Your task to perform on an android device: allow cookies in the chrome app Image 0: 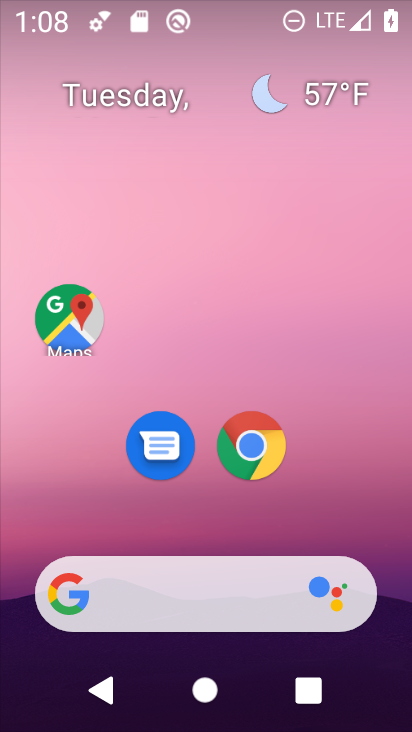
Step 0: drag from (395, 545) to (391, 196)
Your task to perform on an android device: allow cookies in the chrome app Image 1: 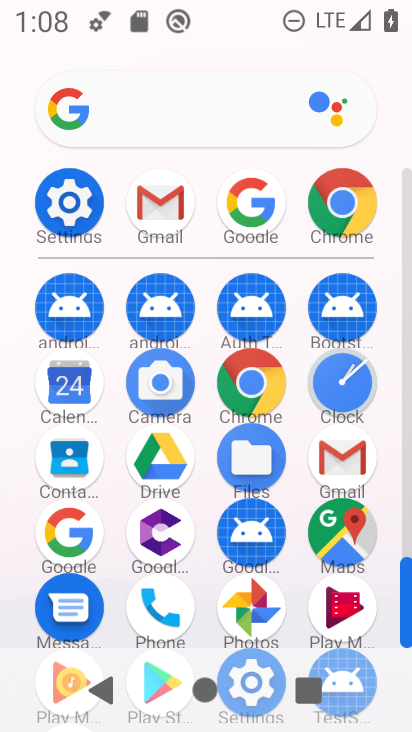
Step 1: click (237, 385)
Your task to perform on an android device: allow cookies in the chrome app Image 2: 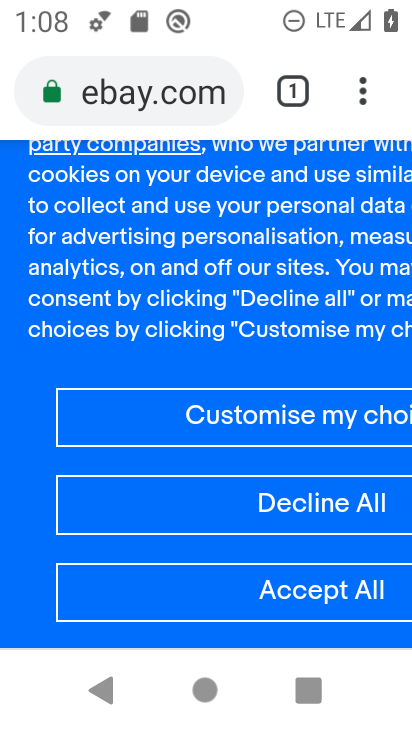
Step 2: click (360, 100)
Your task to perform on an android device: allow cookies in the chrome app Image 3: 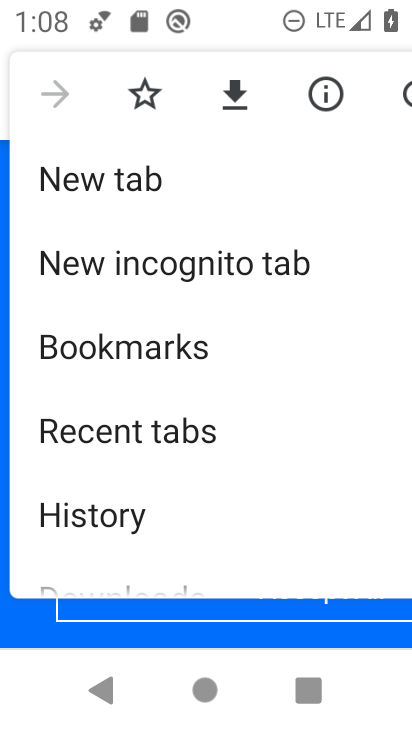
Step 3: drag from (338, 448) to (350, 320)
Your task to perform on an android device: allow cookies in the chrome app Image 4: 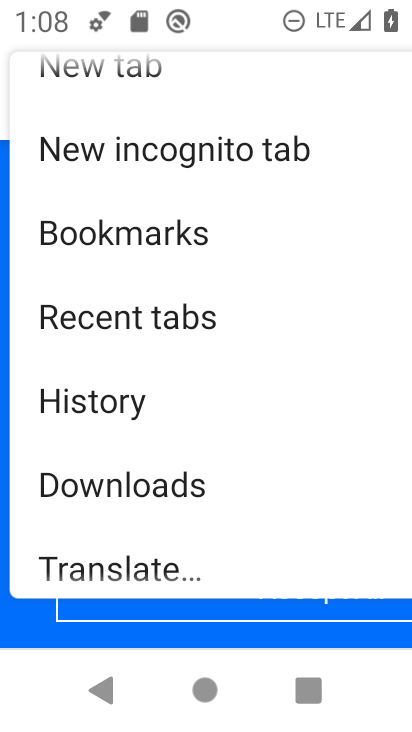
Step 4: drag from (331, 494) to (344, 373)
Your task to perform on an android device: allow cookies in the chrome app Image 5: 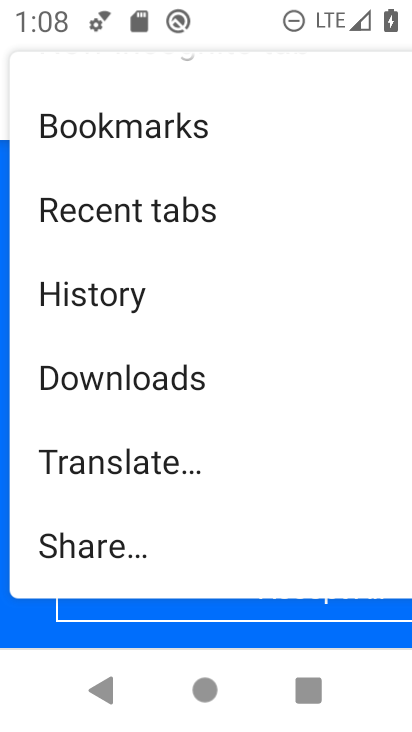
Step 5: drag from (314, 528) to (340, 380)
Your task to perform on an android device: allow cookies in the chrome app Image 6: 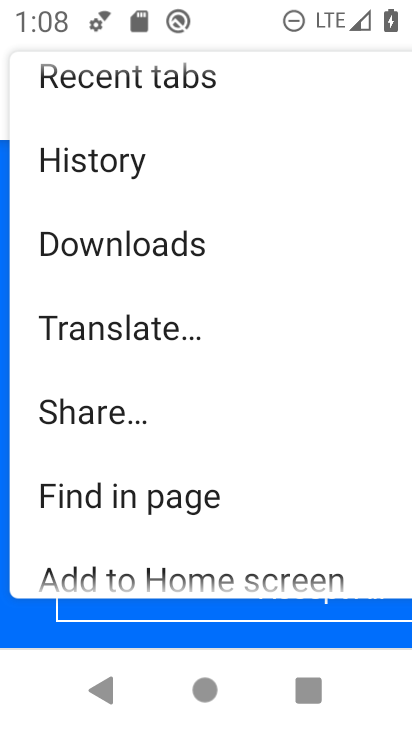
Step 6: drag from (337, 513) to (350, 371)
Your task to perform on an android device: allow cookies in the chrome app Image 7: 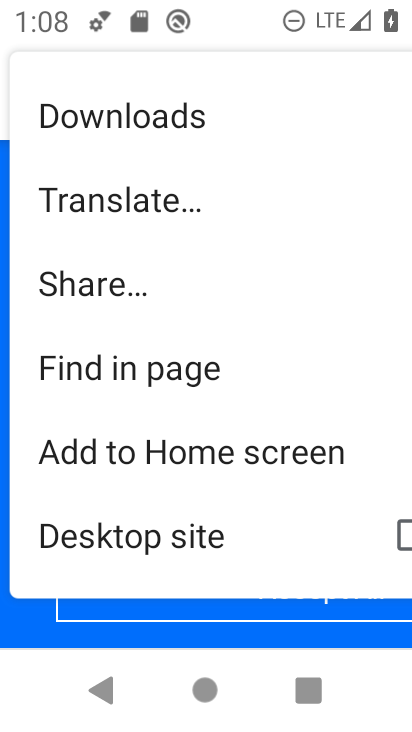
Step 7: drag from (322, 531) to (321, 348)
Your task to perform on an android device: allow cookies in the chrome app Image 8: 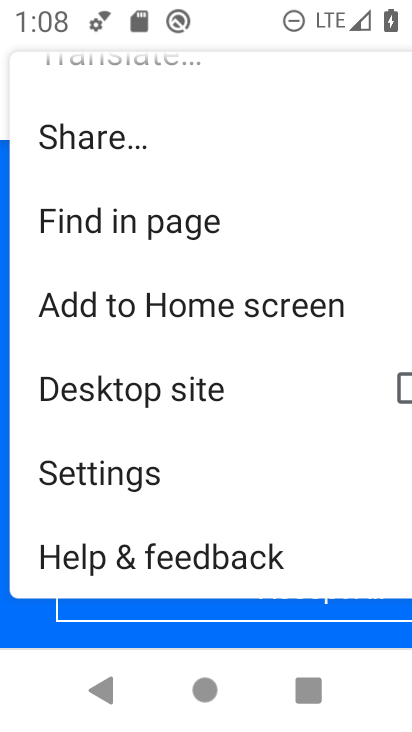
Step 8: click (202, 499)
Your task to perform on an android device: allow cookies in the chrome app Image 9: 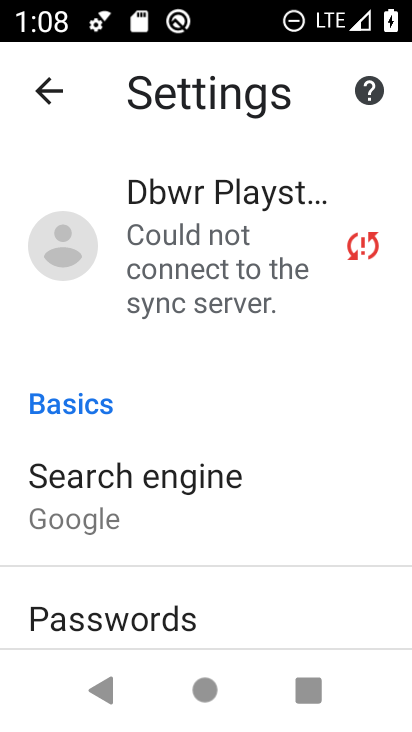
Step 9: drag from (343, 511) to (350, 404)
Your task to perform on an android device: allow cookies in the chrome app Image 10: 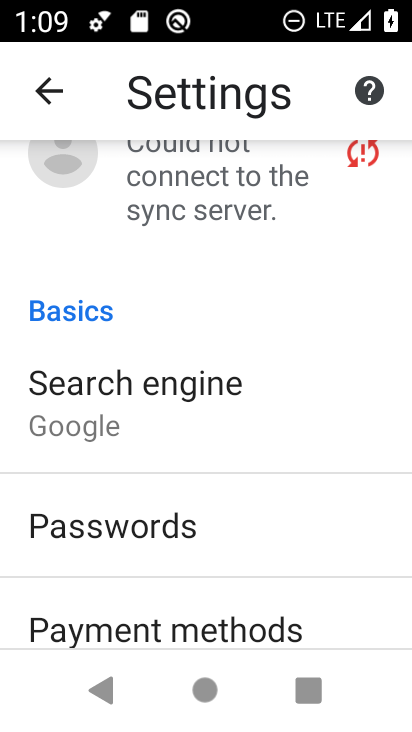
Step 10: drag from (364, 448) to (361, 379)
Your task to perform on an android device: allow cookies in the chrome app Image 11: 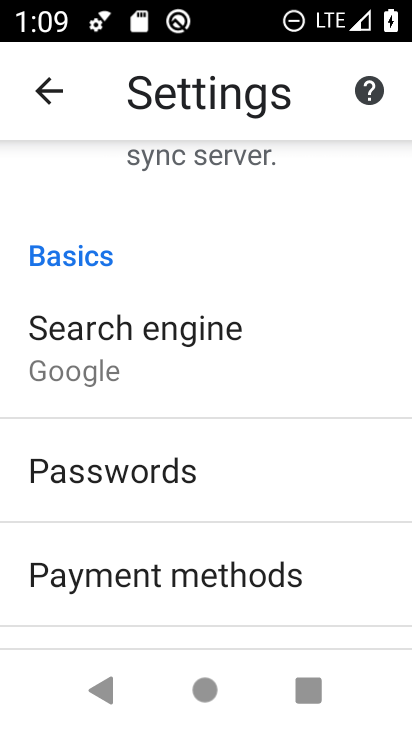
Step 11: drag from (364, 537) to (366, 382)
Your task to perform on an android device: allow cookies in the chrome app Image 12: 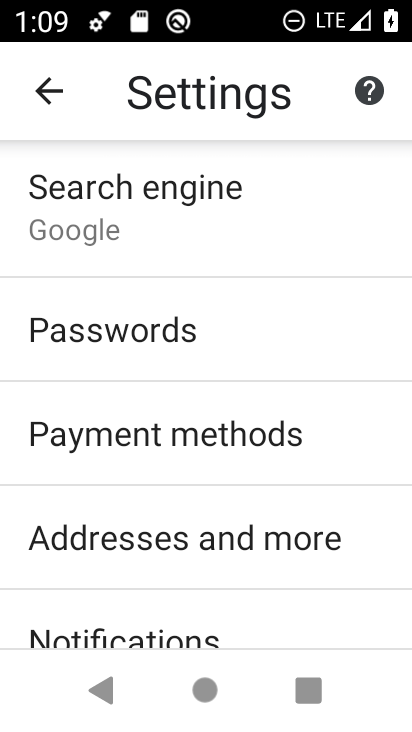
Step 12: drag from (340, 617) to (341, 449)
Your task to perform on an android device: allow cookies in the chrome app Image 13: 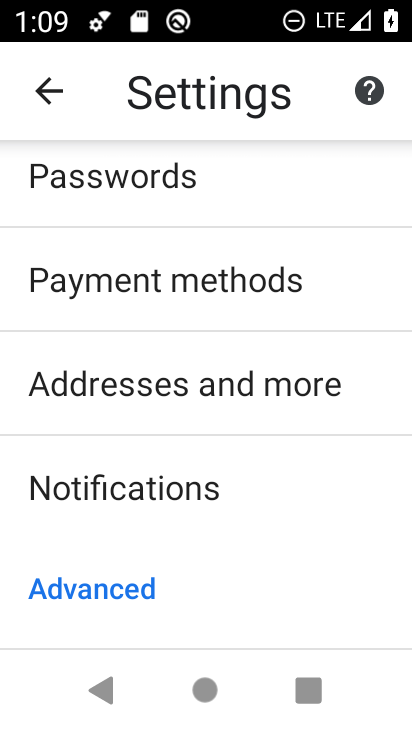
Step 13: drag from (323, 581) to (309, 415)
Your task to perform on an android device: allow cookies in the chrome app Image 14: 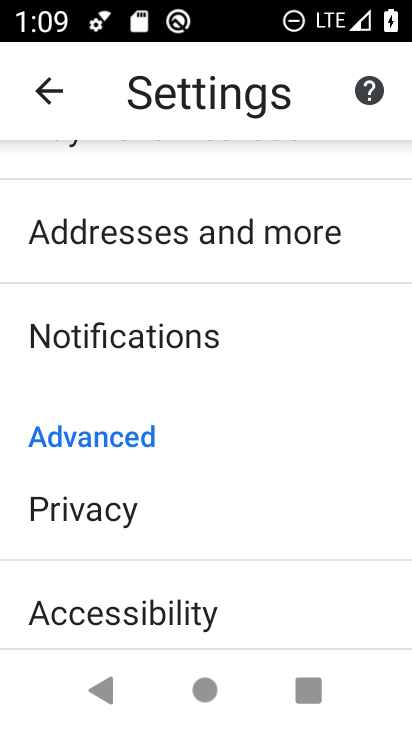
Step 14: drag from (331, 601) to (323, 393)
Your task to perform on an android device: allow cookies in the chrome app Image 15: 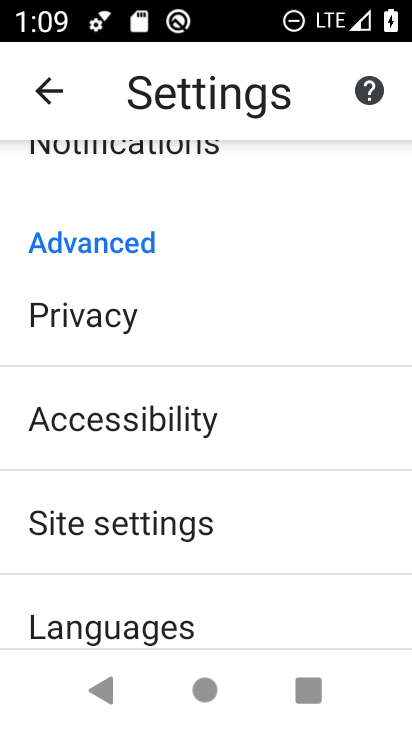
Step 15: drag from (331, 578) to (332, 452)
Your task to perform on an android device: allow cookies in the chrome app Image 16: 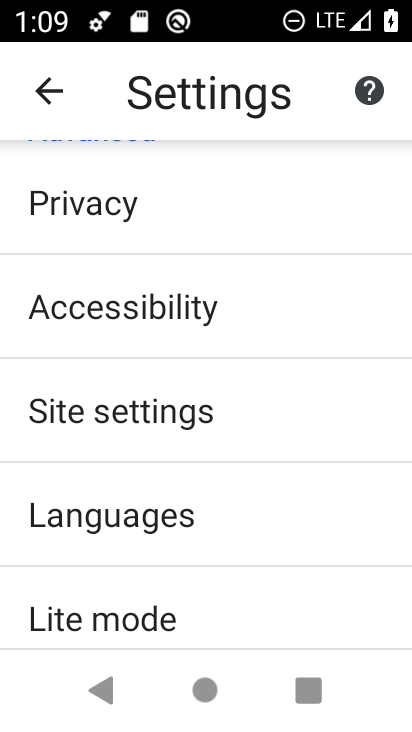
Step 16: click (327, 414)
Your task to perform on an android device: allow cookies in the chrome app Image 17: 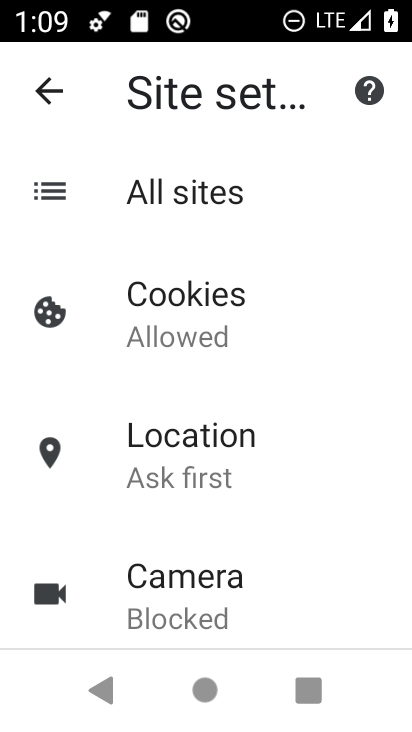
Step 17: click (214, 305)
Your task to perform on an android device: allow cookies in the chrome app Image 18: 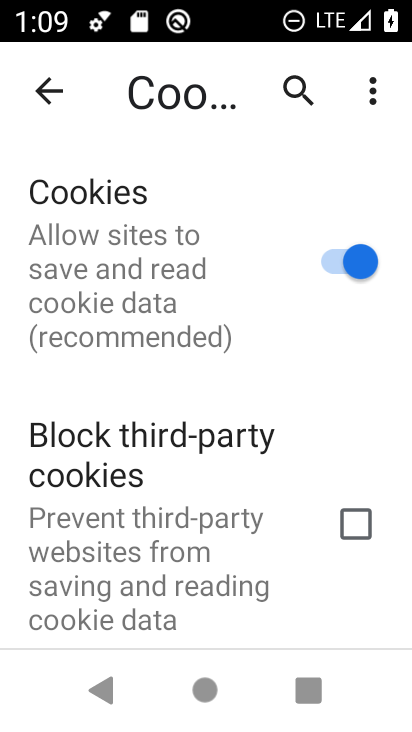
Step 18: task complete